Your task to perform on an android device: Search for the best-rated coffee table on Crate & Barrel Image 0: 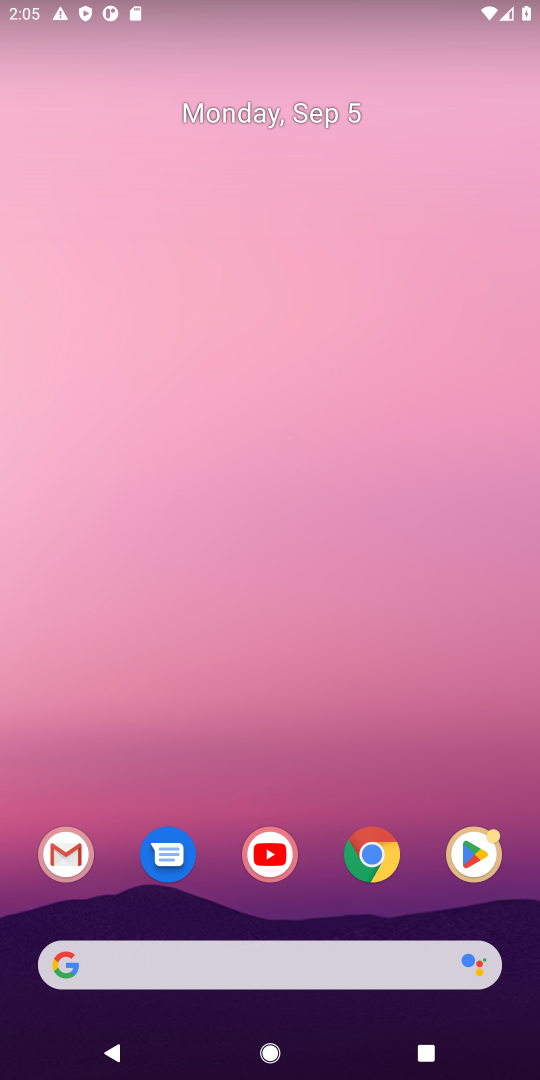
Step 0: click (319, 967)
Your task to perform on an android device: Search for the best-rated coffee table on Crate & Barrel Image 1: 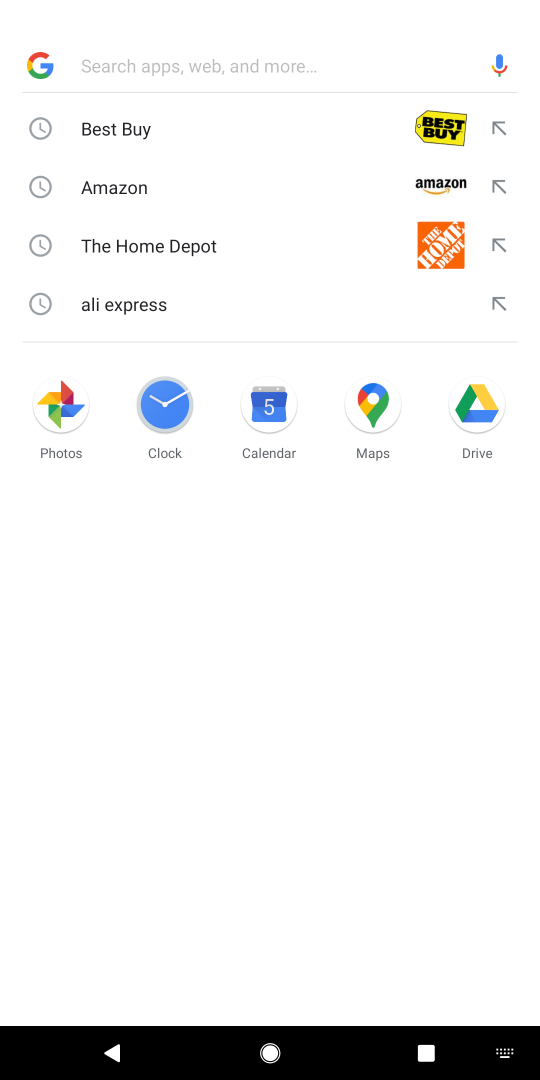
Step 1: press enter
Your task to perform on an android device: Search for the best-rated coffee table on Crate & Barrel Image 2: 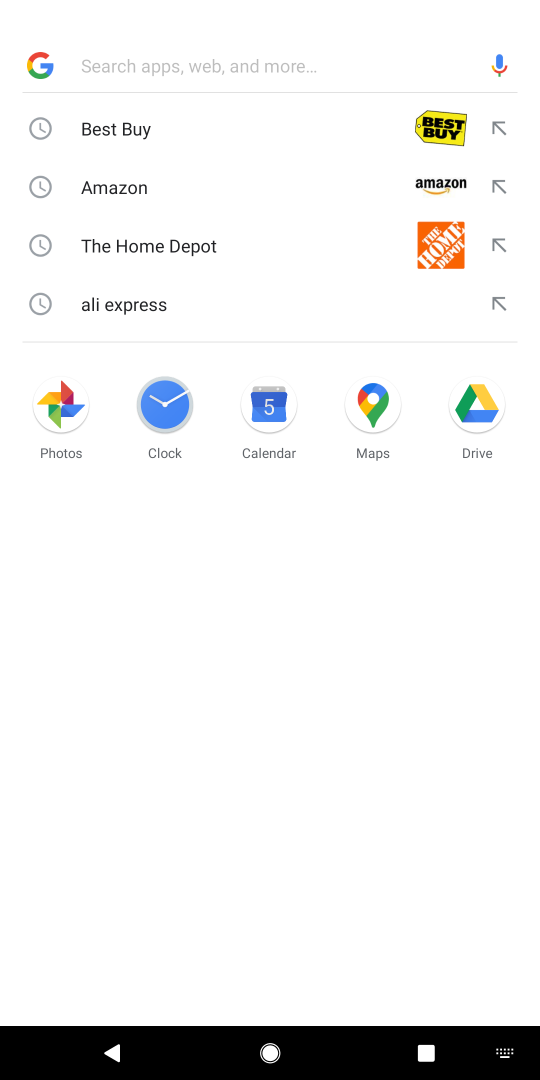
Step 2: type "crate barrel"
Your task to perform on an android device: Search for the best-rated coffee table on Crate & Barrel Image 3: 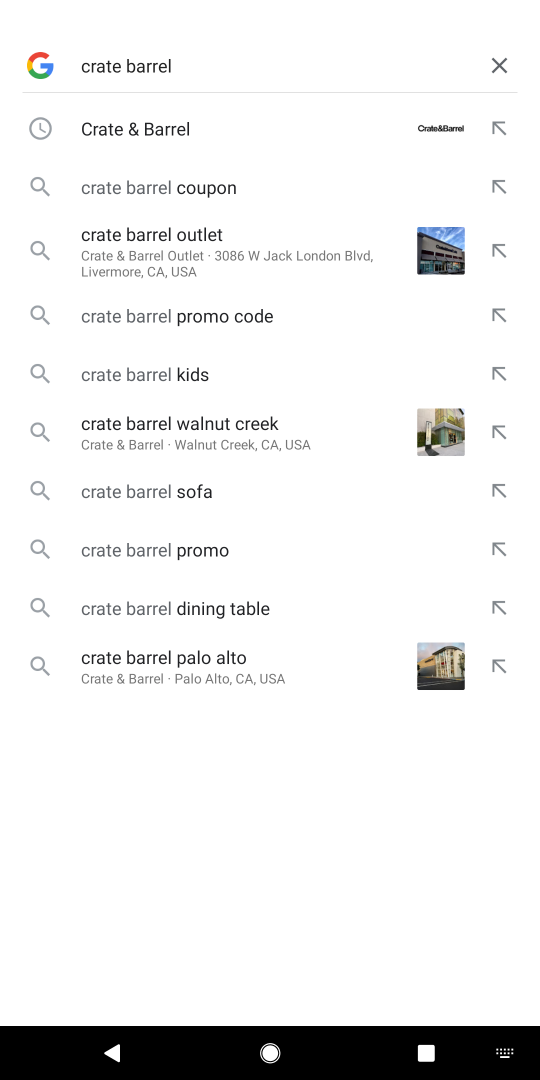
Step 3: click (225, 119)
Your task to perform on an android device: Search for the best-rated coffee table on Crate & Barrel Image 4: 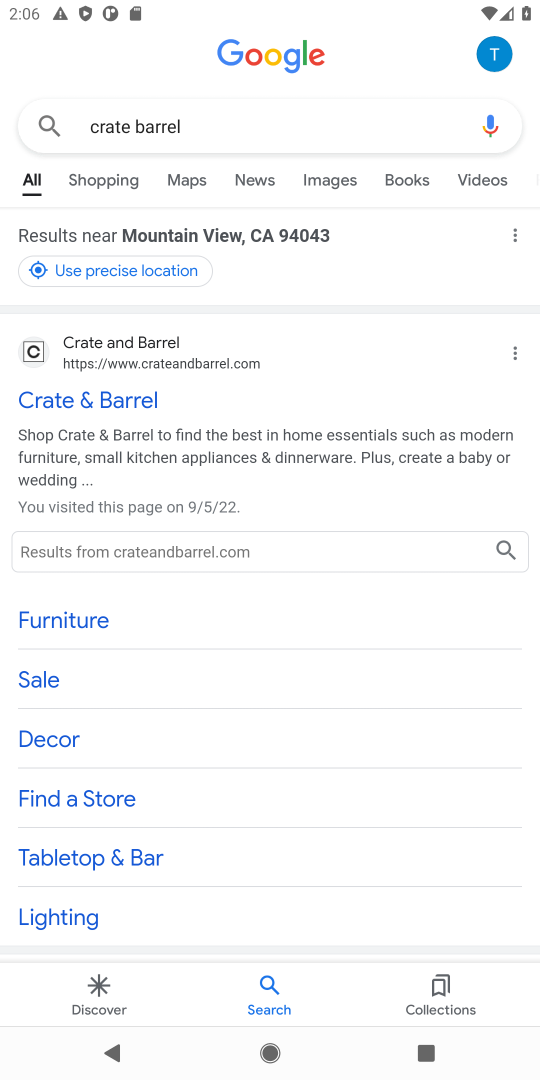
Step 4: click (124, 407)
Your task to perform on an android device: Search for the best-rated coffee table on Crate & Barrel Image 5: 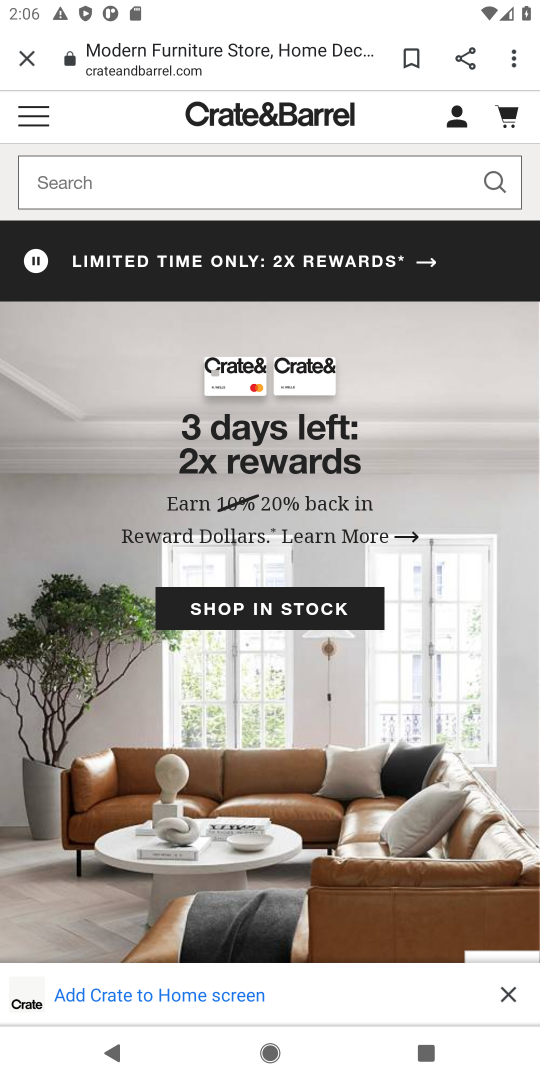
Step 5: click (209, 172)
Your task to perform on an android device: Search for the best-rated coffee table on Crate & Barrel Image 6: 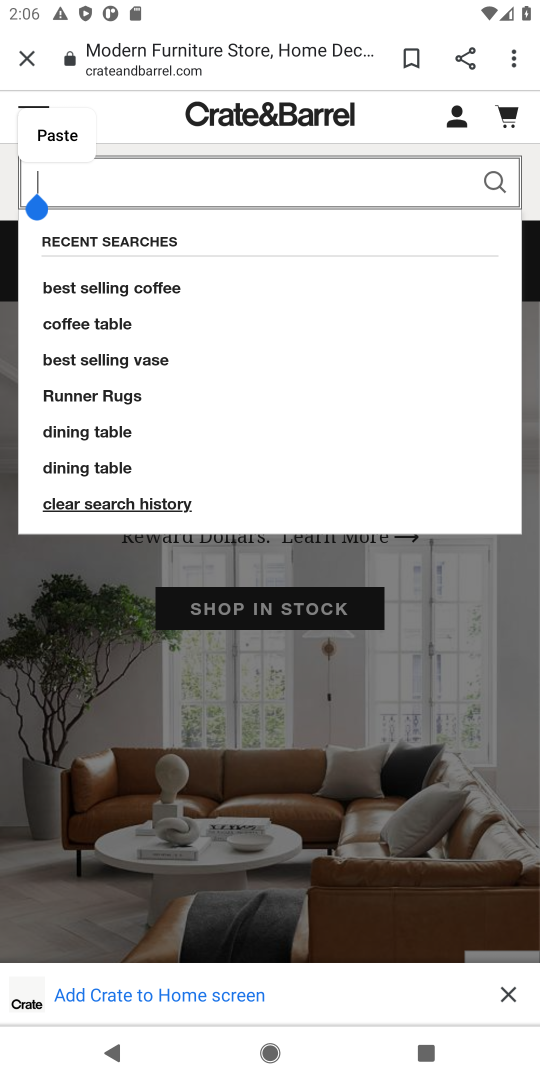
Step 6: press enter
Your task to perform on an android device: Search for the best-rated coffee table on Crate & Barrel Image 7: 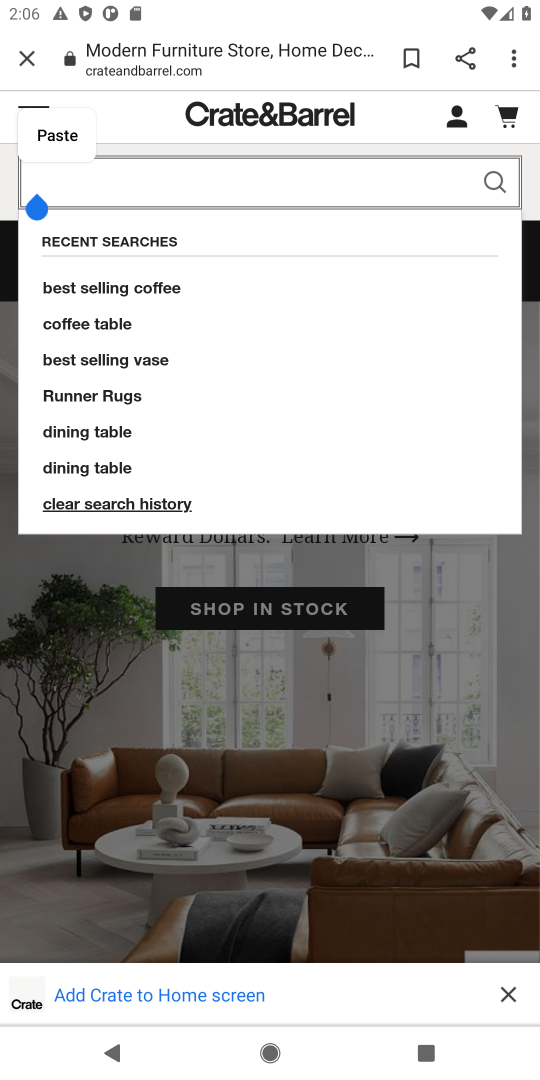
Step 7: type "best rated coffee table"
Your task to perform on an android device: Search for the best-rated coffee table on Crate & Barrel Image 8: 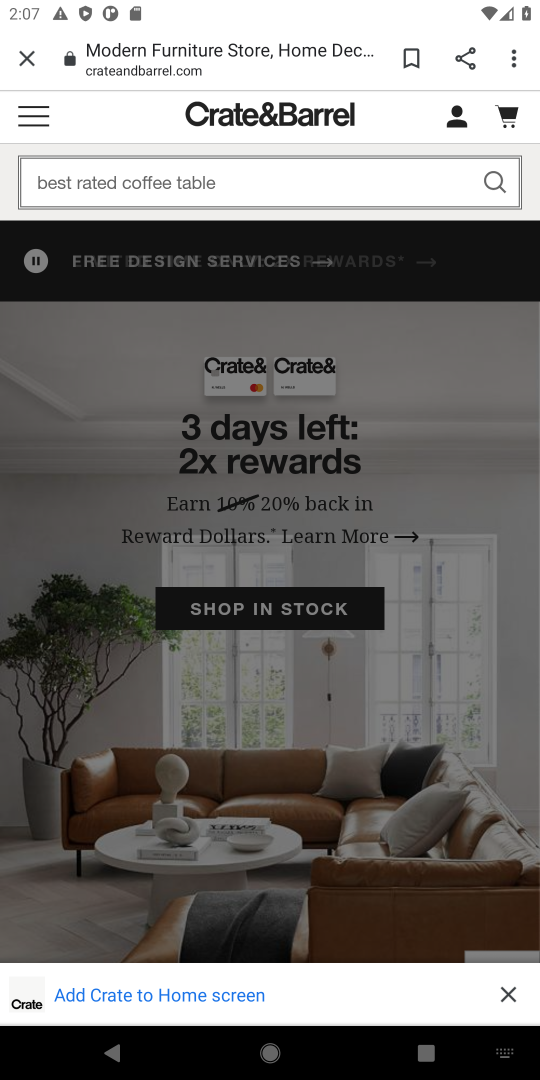
Step 8: click (492, 174)
Your task to perform on an android device: Search for the best-rated coffee table on Crate & Barrel Image 9: 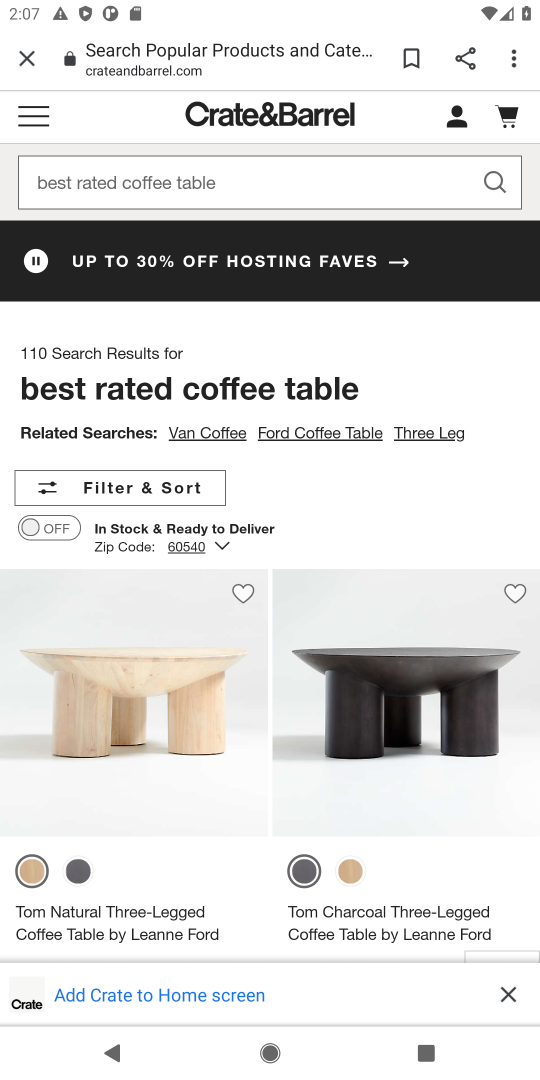
Step 9: task complete